Your task to perform on an android device: Play the last video I watched on Youtube Image 0: 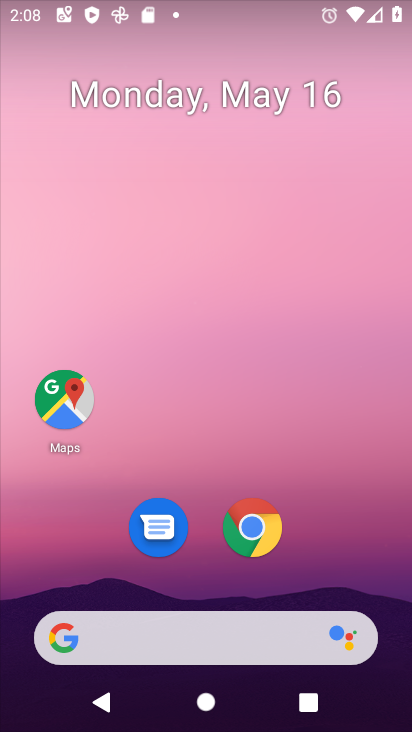
Step 0: drag from (311, 78) to (346, 0)
Your task to perform on an android device: Play the last video I watched on Youtube Image 1: 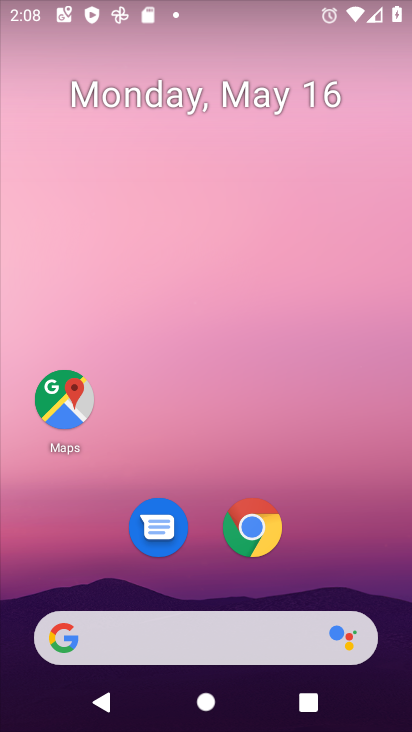
Step 1: drag from (332, 567) to (360, 80)
Your task to perform on an android device: Play the last video I watched on Youtube Image 2: 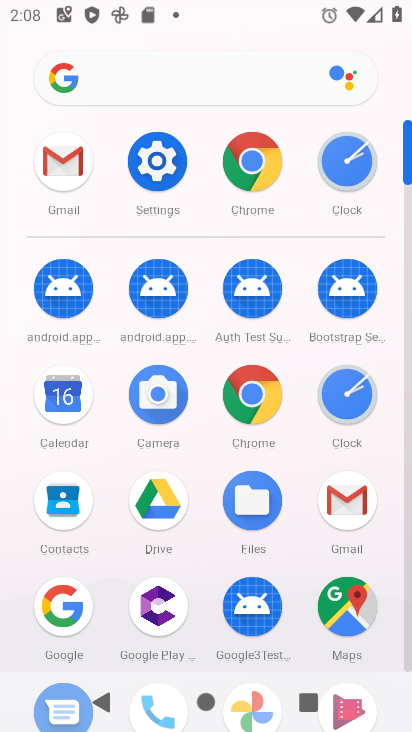
Step 2: click (408, 641)
Your task to perform on an android device: Play the last video I watched on Youtube Image 3: 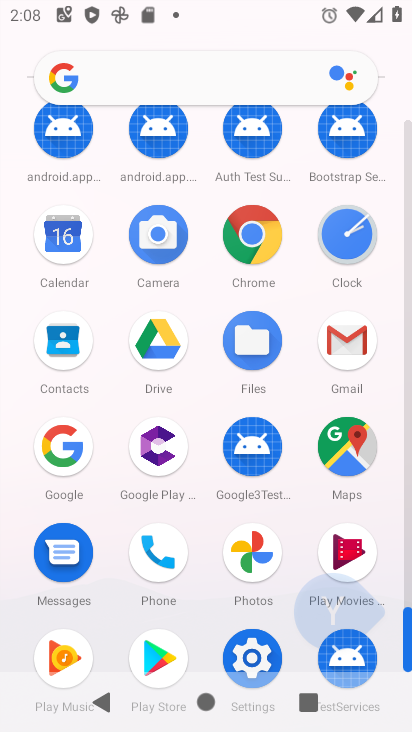
Step 3: click (408, 641)
Your task to perform on an android device: Play the last video I watched on Youtube Image 4: 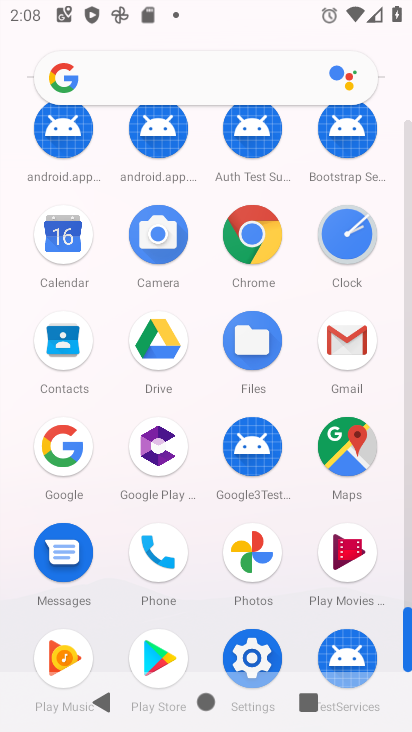
Step 4: drag from (408, 642) to (408, 693)
Your task to perform on an android device: Play the last video I watched on Youtube Image 5: 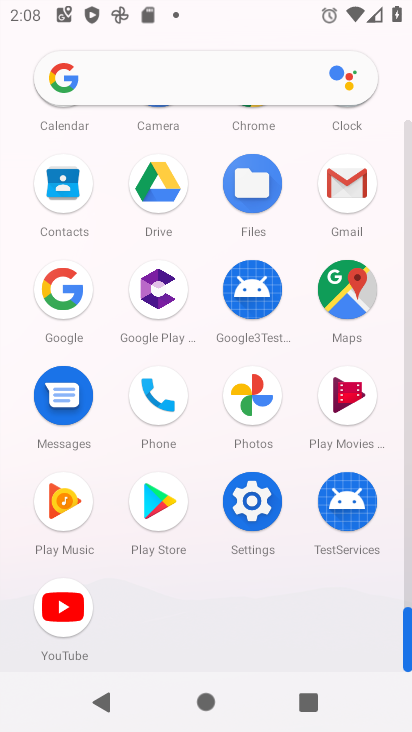
Step 5: click (80, 587)
Your task to perform on an android device: Play the last video I watched on Youtube Image 6: 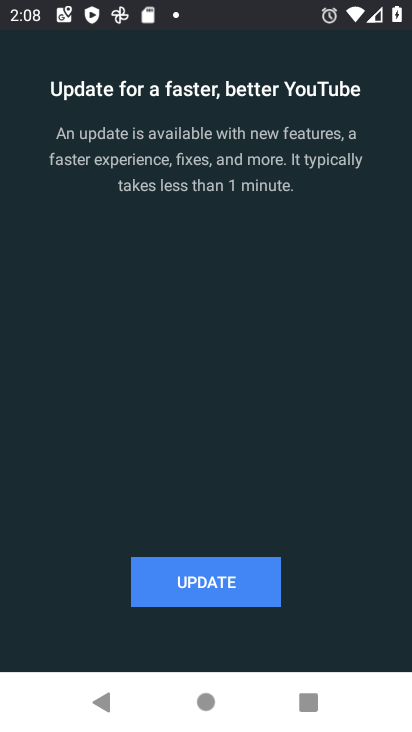
Step 6: click (200, 585)
Your task to perform on an android device: Play the last video I watched on Youtube Image 7: 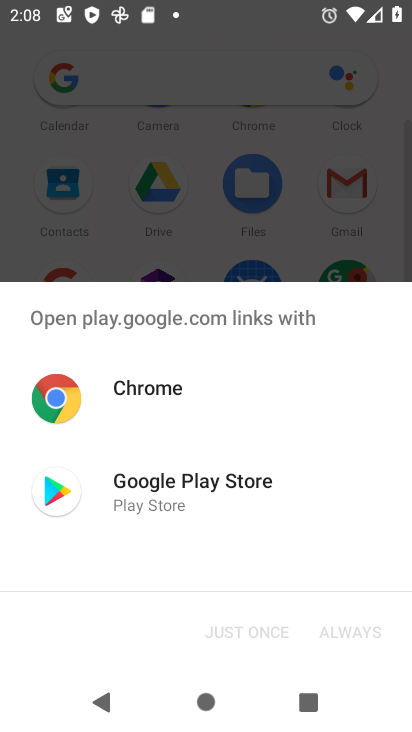
Step 7: click (270, 488)
Your task to perform on an android device: Play the last video I watched on Youtube Image 8: 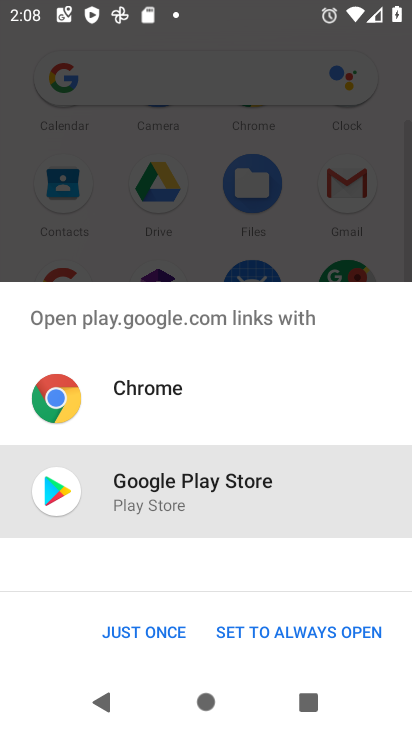
Step 8: click (112, 642)
Your task to perform on an android device: Play the last video I watched on Youtube Image 9: 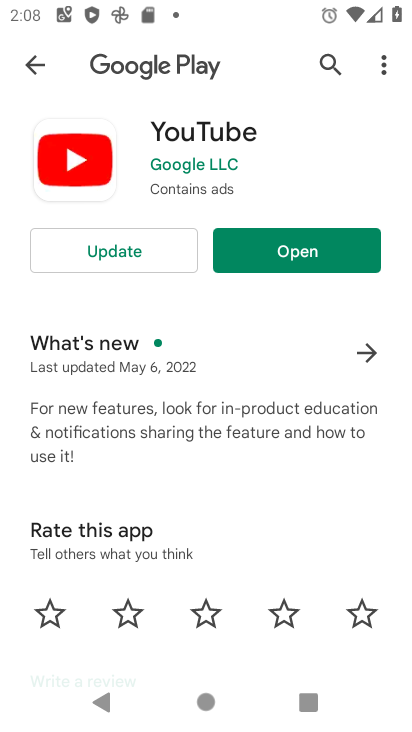
Step 9: click (154, 262)
Your task to perform on an android device: Play the last video I watched on Youtube Image 10: 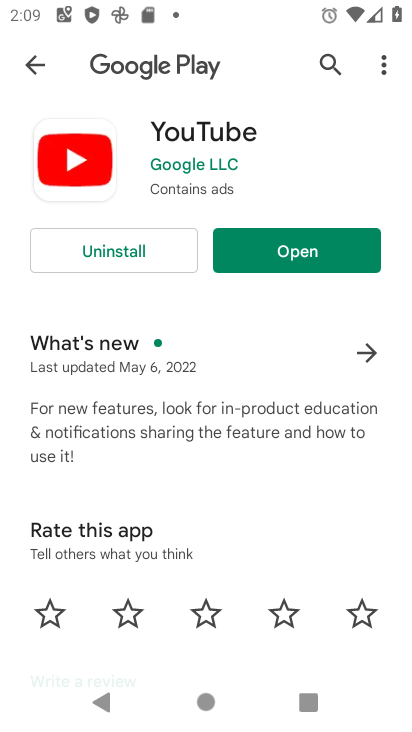
Step 10: click (285, 254)
Your task to perform on an android device: Play the last video I watched on Youtube Image 11: 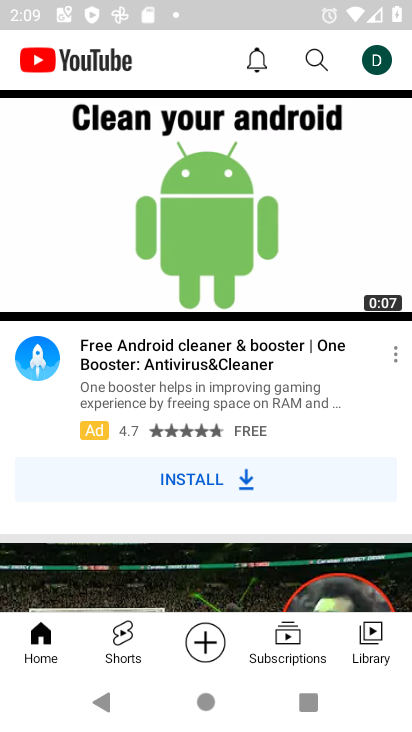
Step 11: click (380, 641)
Your task to perform on an android device: Play the last video I watched on Youtube Image 12: 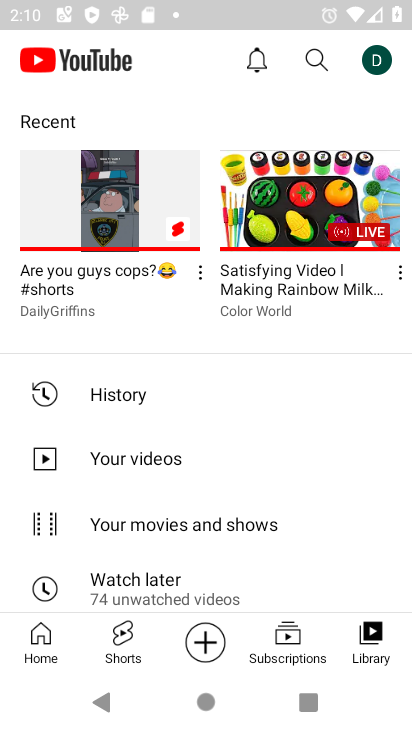
Step 12: task complete